Your task to perform on an android device: find photos in the google photos app Image 0: 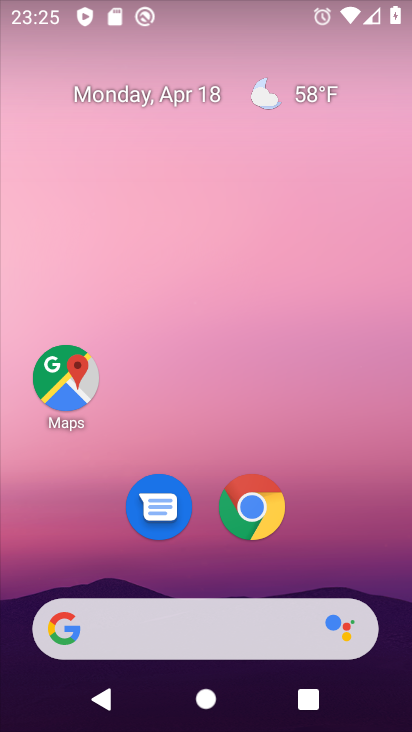
Step 0: drag from (201, 447) to (184, 17)
Your task to perform on an android device: find photos in the google photos app Image 1: 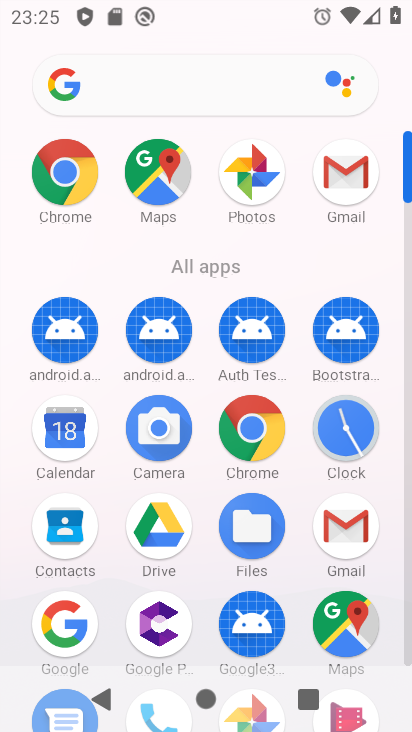
Step 1: click (251, 197)
Your task to perform on an android device: find photos in the google photos app Image 2: 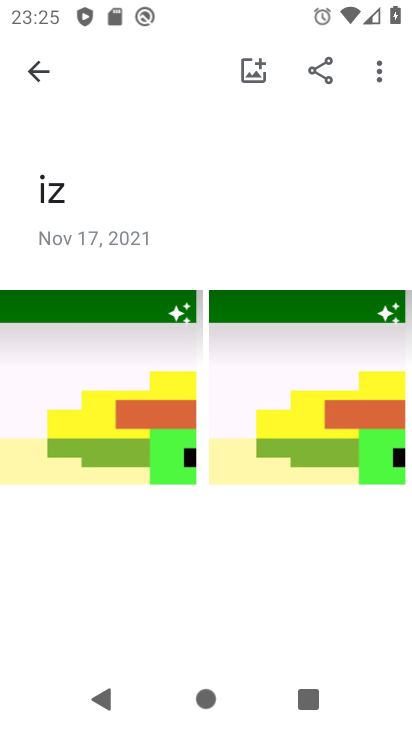
Step 2: click (39, 69)
Your task to perform on an android device: find photos in the google photos app Image 3: 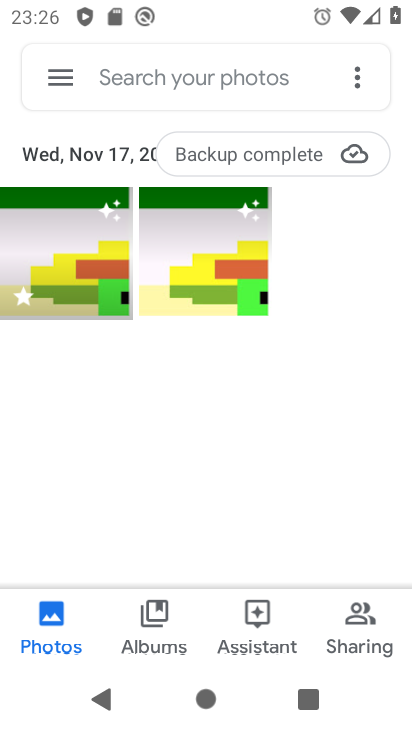
Step 3: task complete